Your task to perform on an android device: Go to privacy settings Image 0: 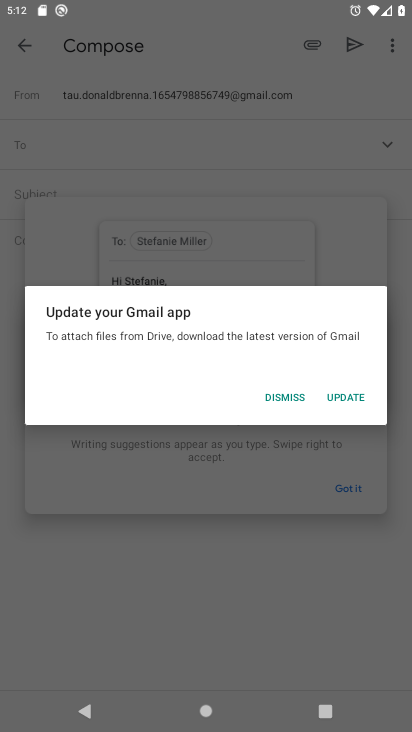
Step 0: click (283, 398)
Your task to perform on an android device: Go to privacy settings Image 1: 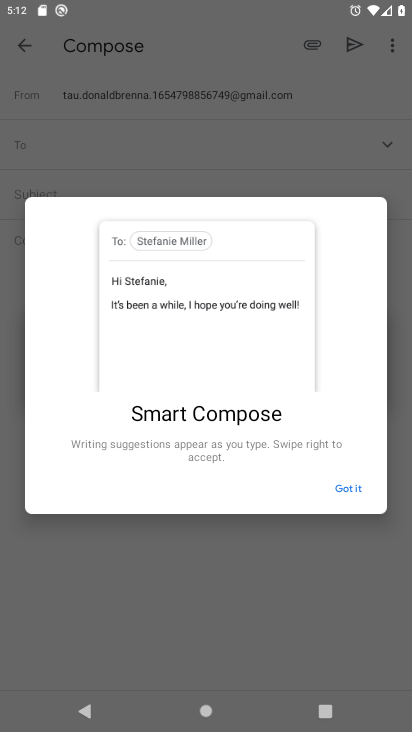
Step 1: click (38, 65)
Your task to perform on an android device: Go to privacy settings Image 2: 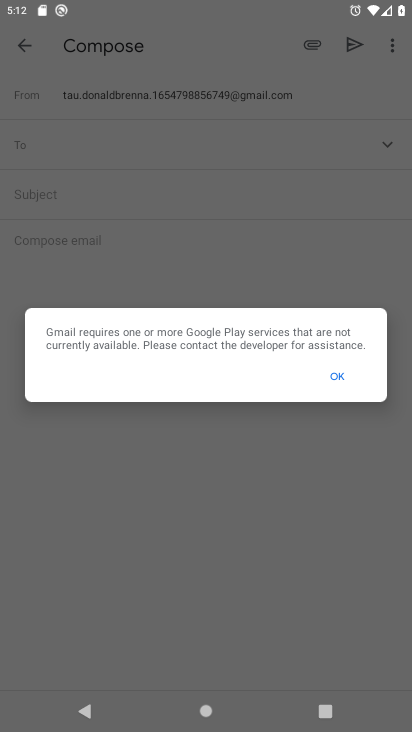
Step 2: click (343, 375)
Your task to perform on an android device: Go to privacy settings Image 3: 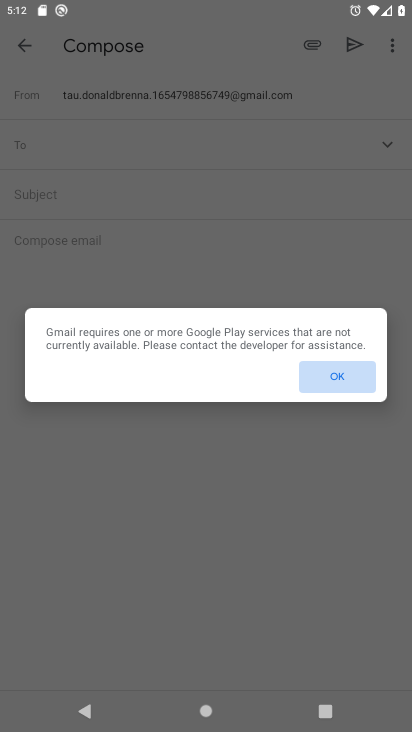
Step 3: click (324, 391)
Your task to perform on an android device: Go to privacy settings Image 4: 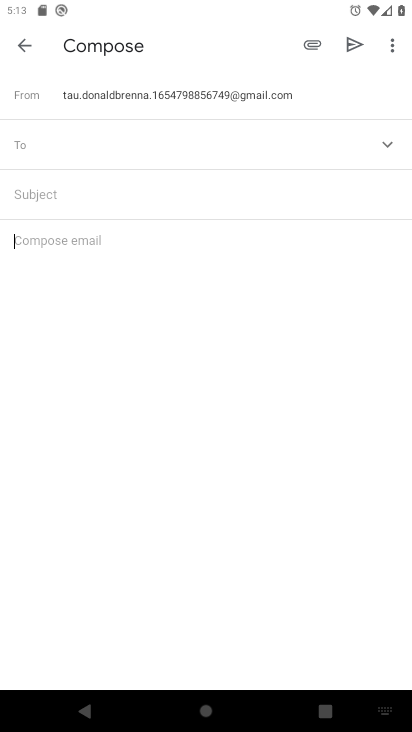
Step 4: click (23, 41)
Your task to perform on an android device: Go to privacy settings Image 5: 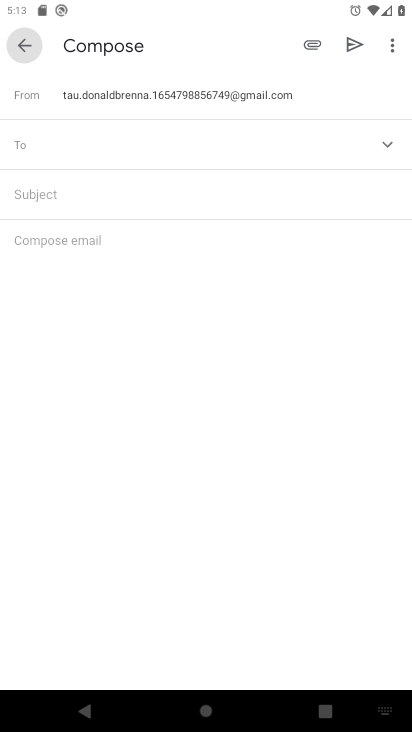
Step 5: click (26, 40)
Your task to perform on an android device: Go to privacy settings Image 6: 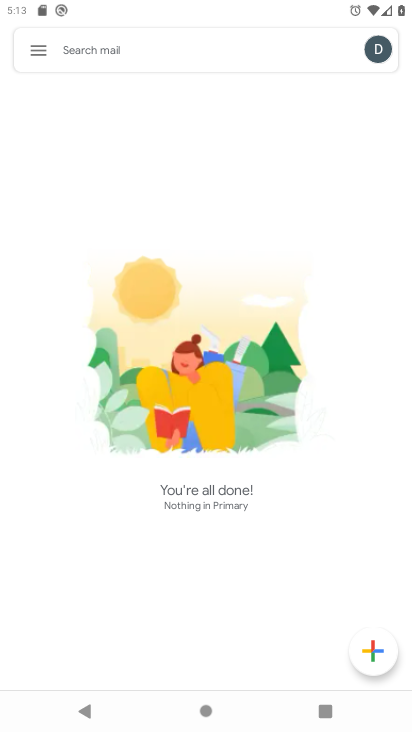
Step 6: press back button
Your task to perform on an android device: Go to privacy settings Image 7: 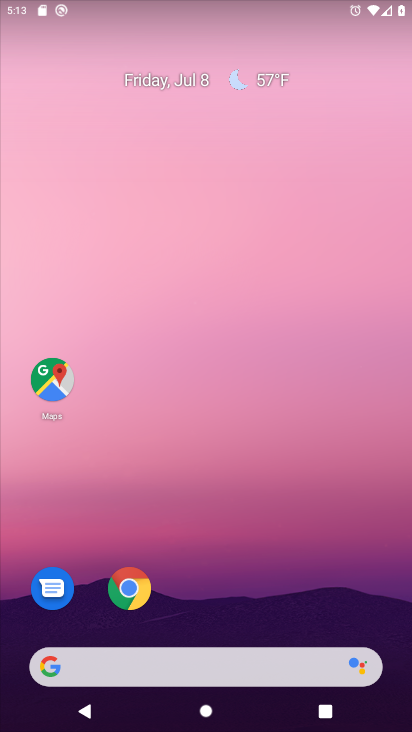
Step 7: drag from (262, 545) to (188, 122)
Your task to perform on an android device: Go to privacy settings Image 8: 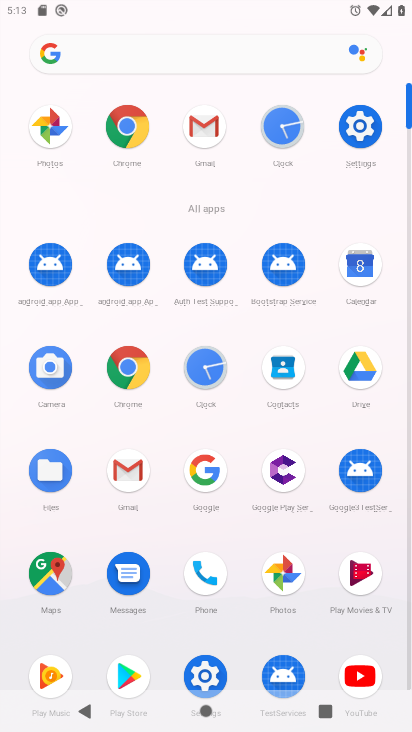
Step 8: click (346, 132)
Your task to perform on an android device: Go to privacy settings Image 9: 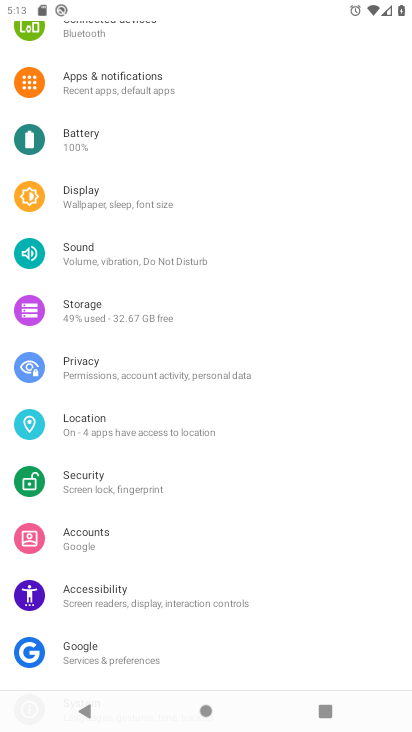
Step 9: click (85, 378)
Your task to perform on an android device: Go to privacy settings Image 10: 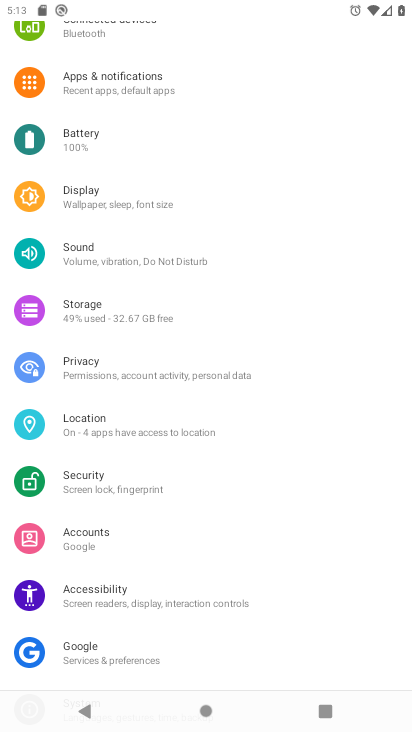
Step 10: click (75, 376)
Your task to perform on an android device: Go to privacy settings Image 11: 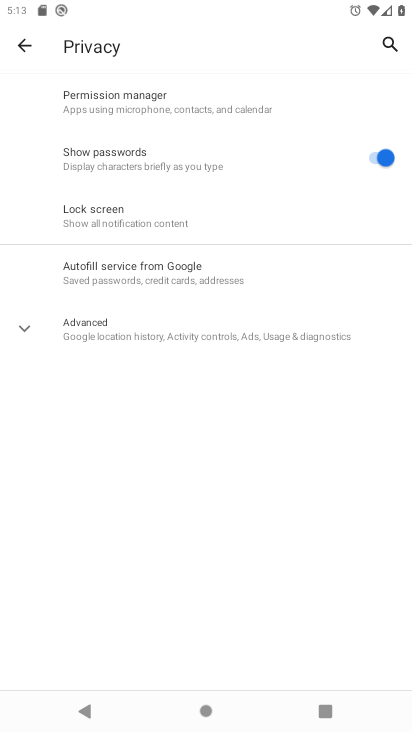
Step 11: task complete